Your task to perform on an android device: open wifi settings Image 0: 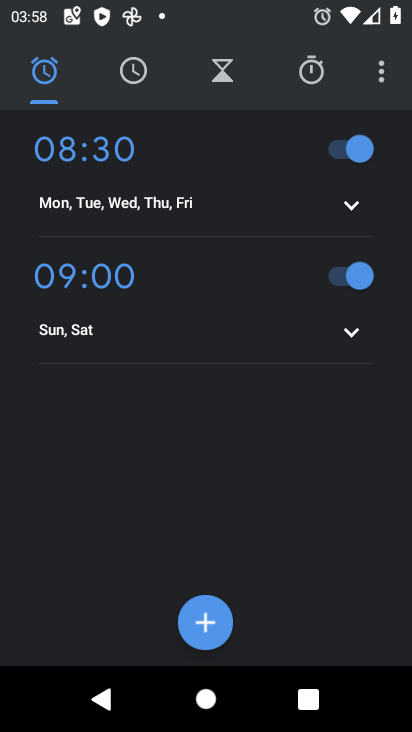
Step 0: press home button
Your task to perform on an android device: open wifi settings Image 1: 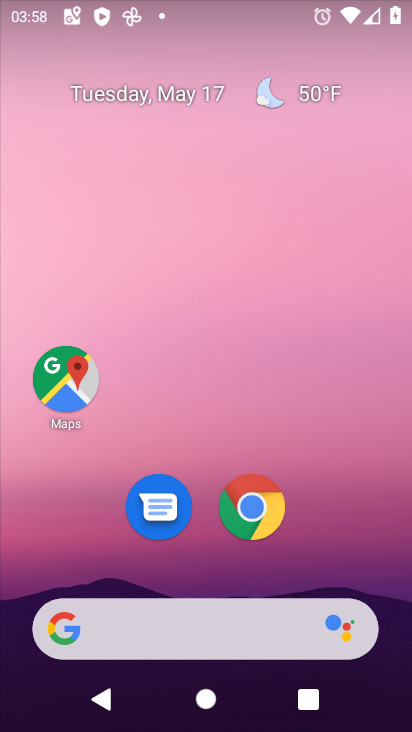
Step 1: drag from (337, 544) to (264, 23)
Your task to perform on an android device: open wifi settings Image 2: 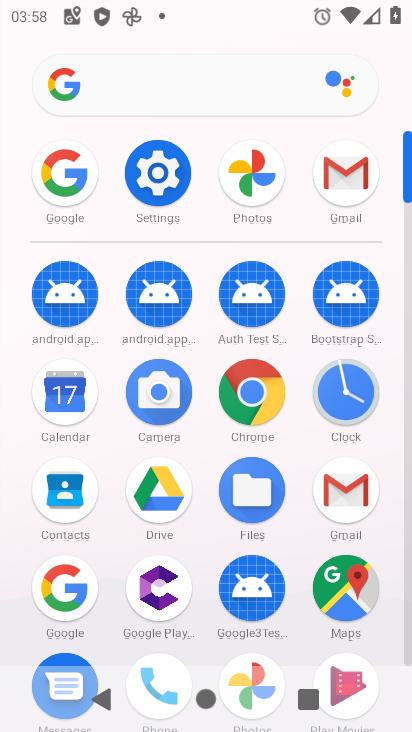
Step 2: click (162, 172)
Your task to perform on an android device: open wifi settings Image 3: 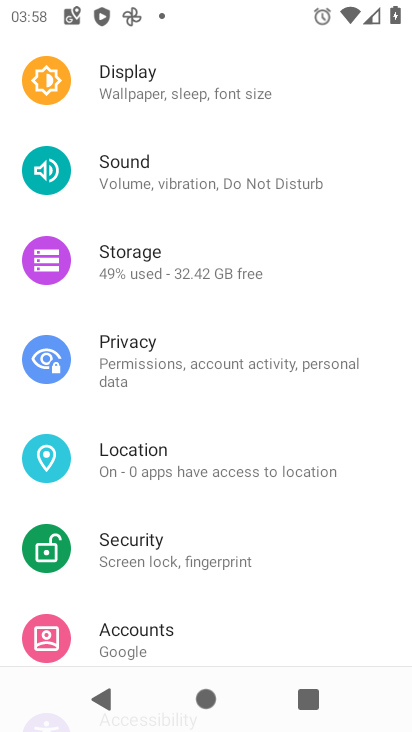
Step 3: drag from (251, 134) to (202, 575)
Your task to perform on an android device: open wifi settings Image 4: 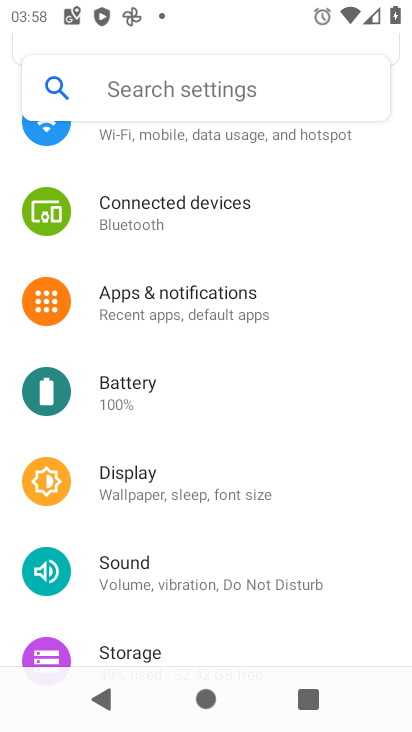
Step 4: drag from (219, 200) to (223, 552)
Your task to perform on an android device: open wifi settings Image 5: 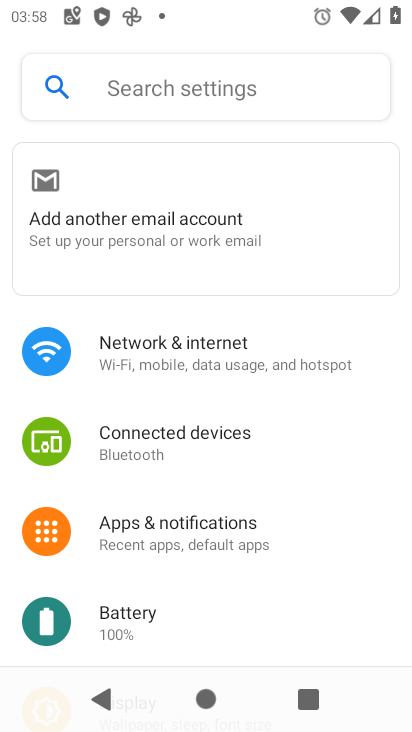
Step 5: click (184, 341)
Your task to perform on an android device: open wifi settings Image 6: 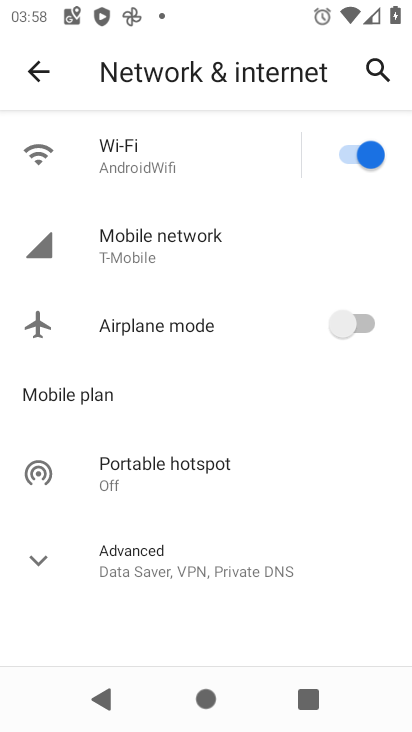
Step 6: click (205, 164)
Your task to perform on an android device: open wifi settings Image 7: 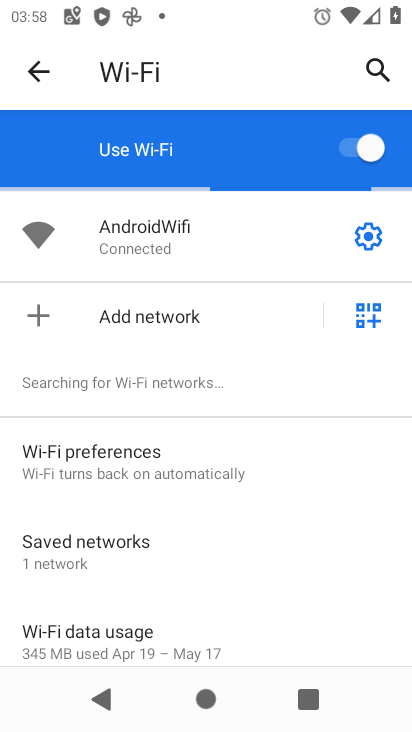
Step 7: task complete